Your task to perform on an android device: Open settings Image 0: 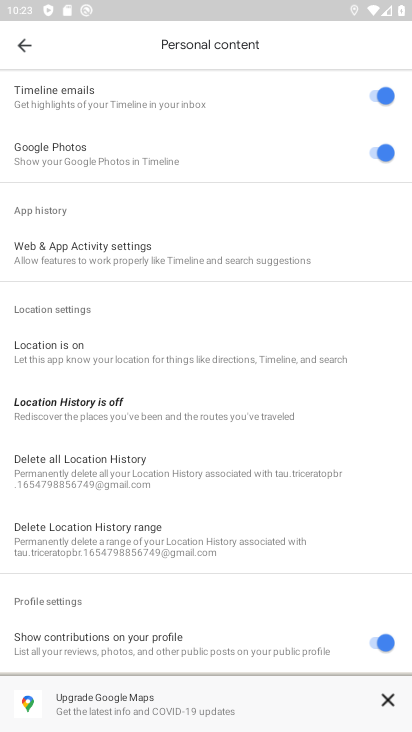
Step 0: press home button
Your task to perform on an android device: Open settings Image 1: 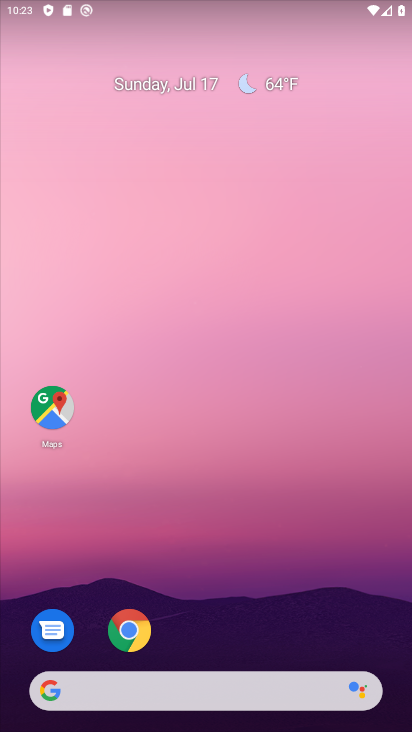
Step 1: drag from (324, 641) to (301, 234)
Your task to perform on an android device: Open settings Image 2: 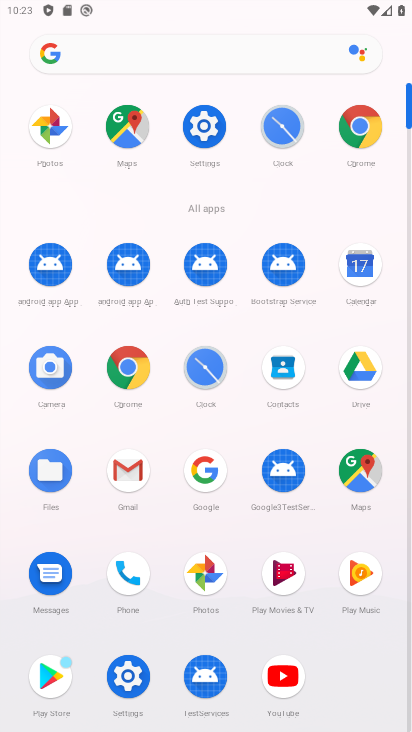
Step 2: click (127, 673)
Your task to perform on an android device: Open settings Image 3: 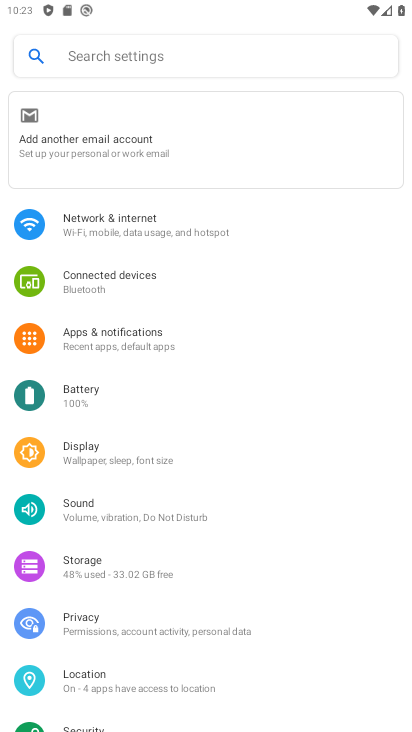
Step 3: task complete